Your task to perform on an android device: see sites visited before in the chrome app Image 0: 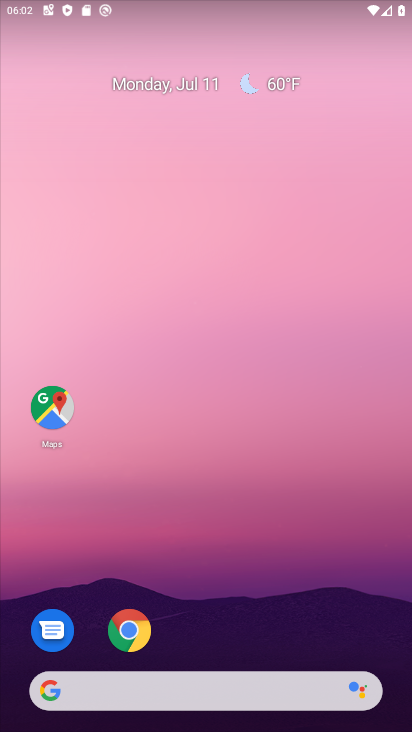
Step 0: click (130, 636)
Your task to perform on an android device: see sites visited before in the chrome app Image 1: 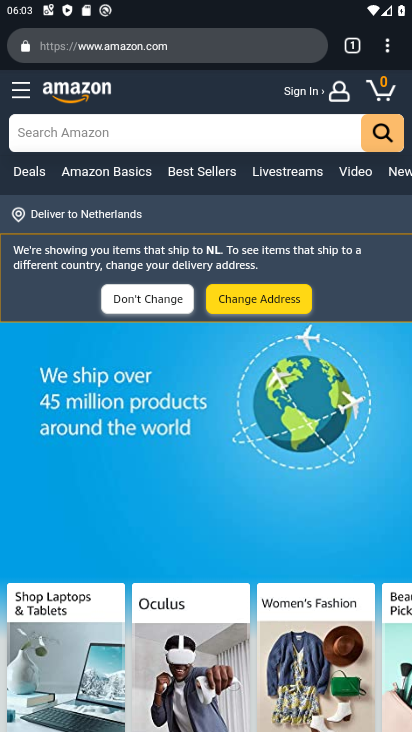
Step 1: click (387, 45)
Your task to perform on an android device: see sites visited before in the chrome app Image 2: 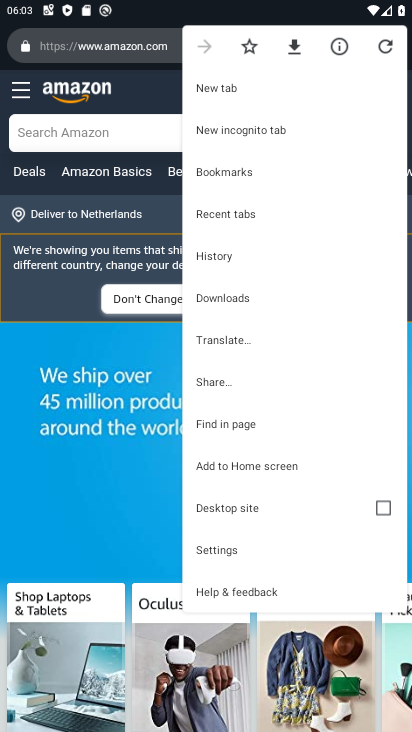
Step 2: click (218, 252)
Your task to perform on an android device: see sites visited before in the chrome app Image 3: 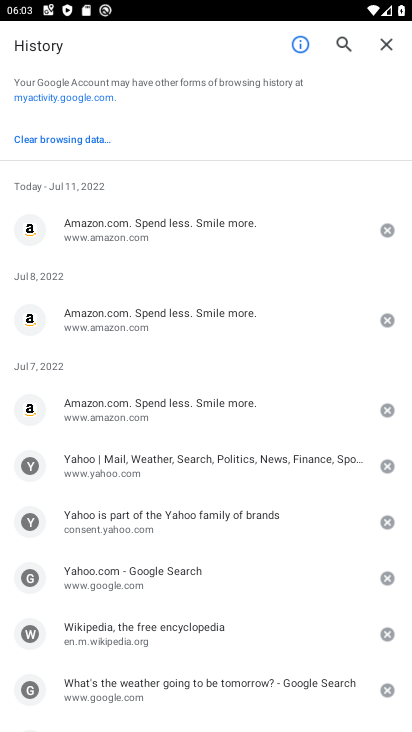
Step 3: task complete